Your task to perform on an android device: turn off translation in the chrome app Image 0: 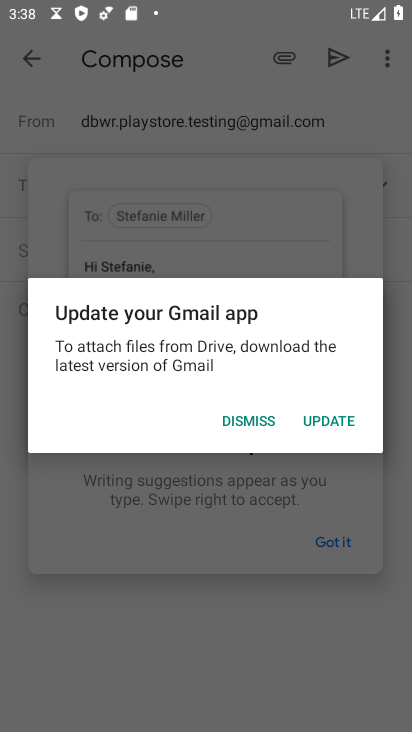
Step 0: press home button
Your task to perform on an android device: turn off translation in the chrome app Image 1: 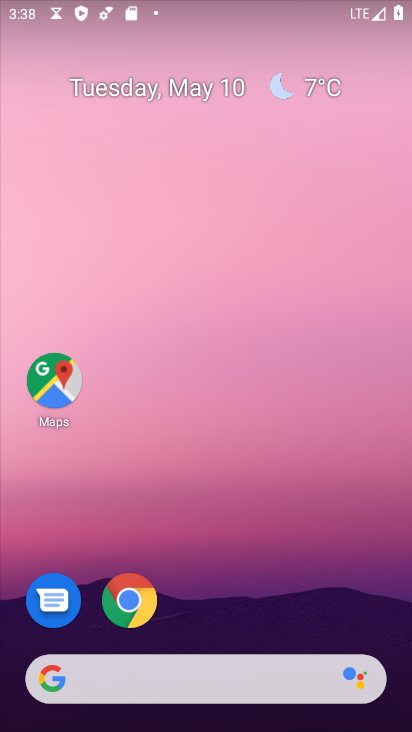
Step 1: click (141, 601)
Your task to perform on an android device: turn off translation in the chrome app Image 2: 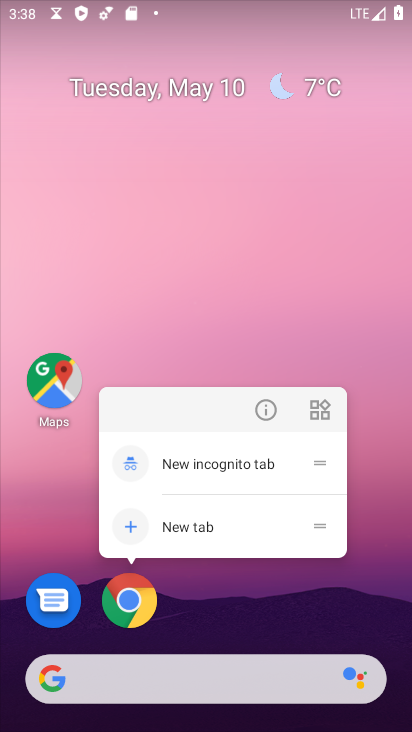
Step 2: click (140, 600)
Your task to perform on an android device: turn off translation in the chrome app Image 3: 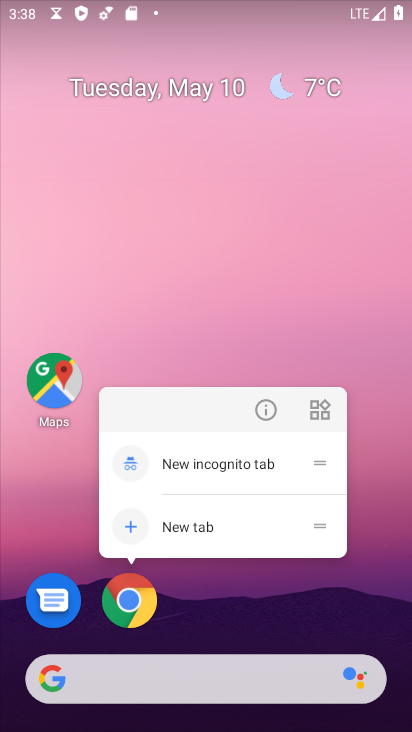
Step 3: click (132, 592)
Your task to perform on an android device: turn off translation in the chrome app Image 4: 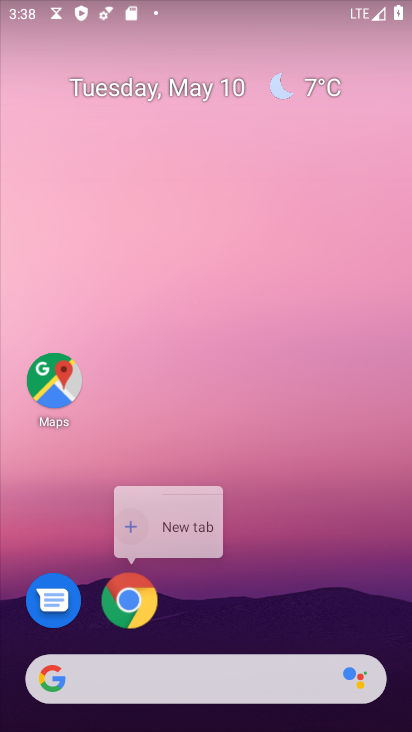
Step 4: click (133, 591)
Your task to perform on an android device: turn off translation in the chrome app Image 5: 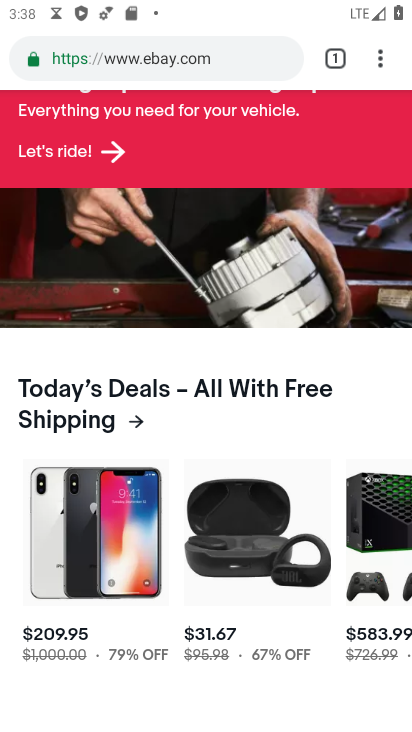
Step 5: click (343, 50)
Your task to perform on an android device: turn off translation in the chrome app Image 6: 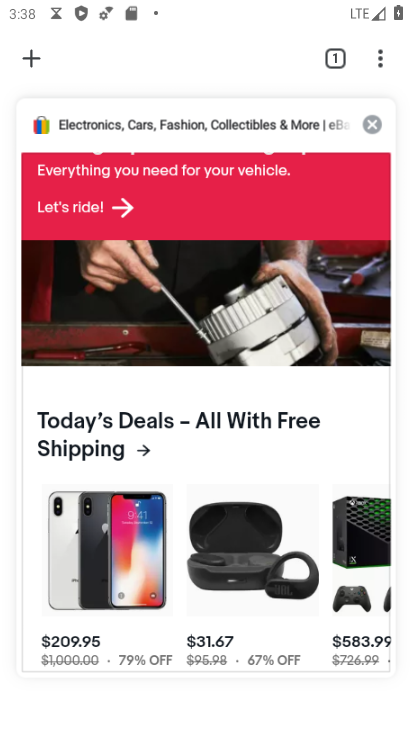
Step 6: click (373, 122)
Your task to perform on an android device: turn off translation in the chrome app Image 7: 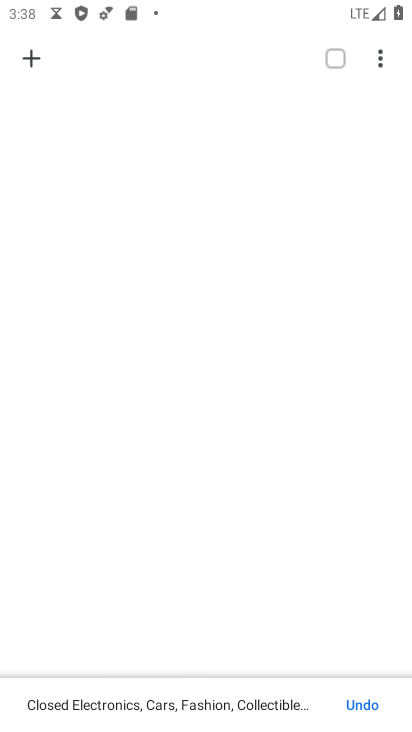
Step 7: click (384, 56)
Your task to perform on an android device: turn off translation in the chrome app Image 8: 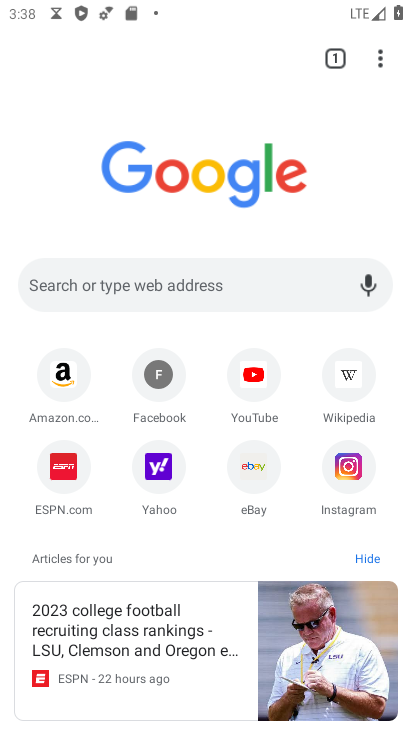
Step 8: click (384, 56)
Your task to perform on an android device: turn off translation in the chrome app Image 9: 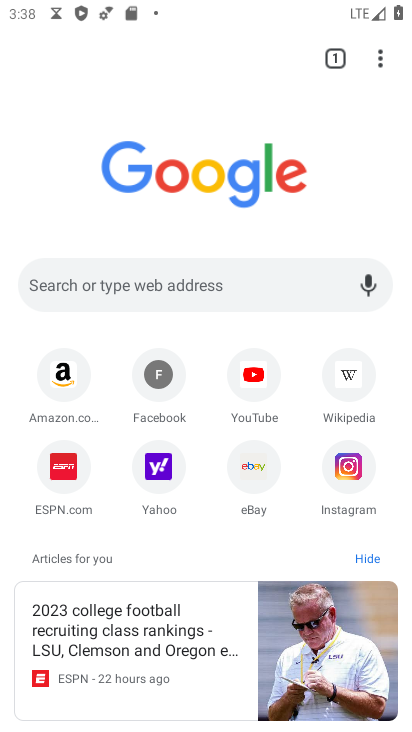
Step 9: click (383, 55)
Your task to perform on an android device: turn off translation in the chrome app Image 10: 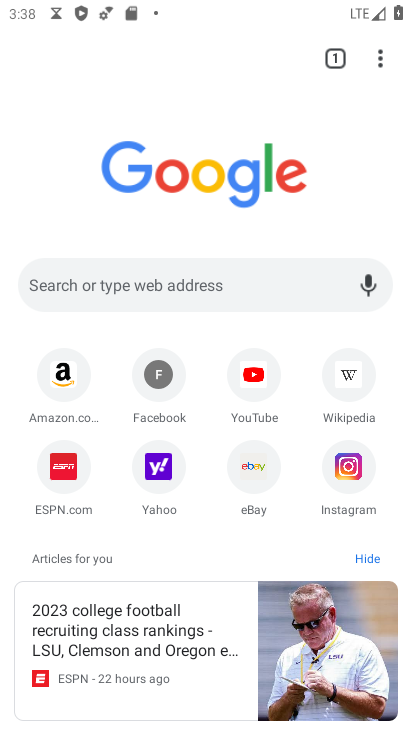
Step 10: click (383, 55)
Your task to perform on an android device: turn off translation in the chrome app Image 11: 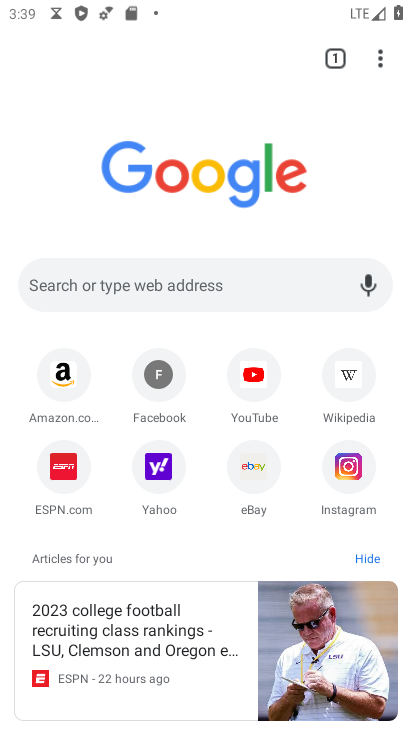
Step 11: click (383, 55)
Your task to perform on an android device: turn off translation in the chrome app Image 12: 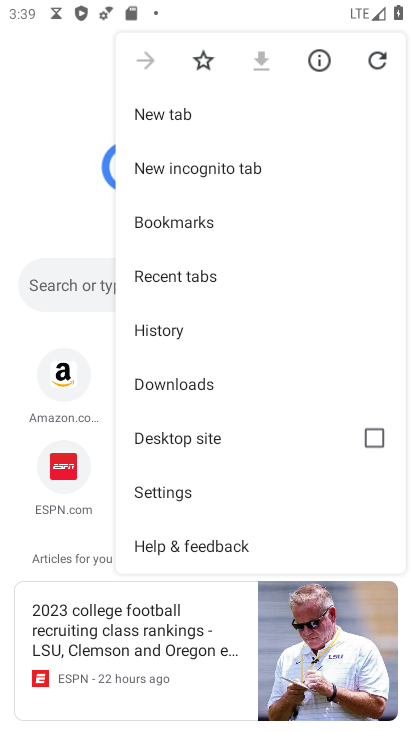
Step 12: click (192, 489)
Your task to perform on an android device: turn off translation in the chrome app Image 13: 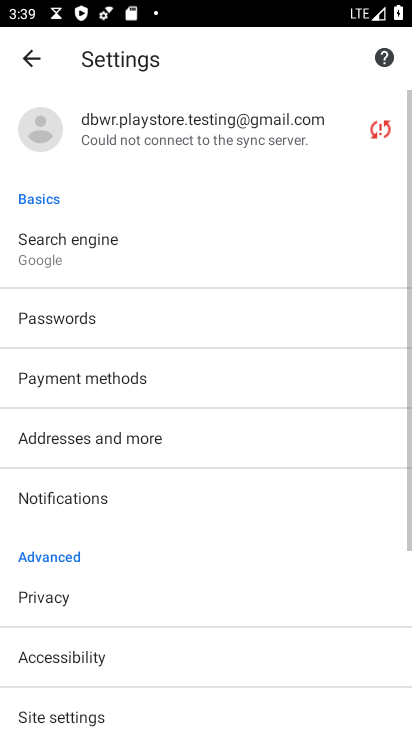
Step 13: drag from (187, 532) to (138, 317)
Your task to perform on an android device: turn off translation in the chrome app Image 14: 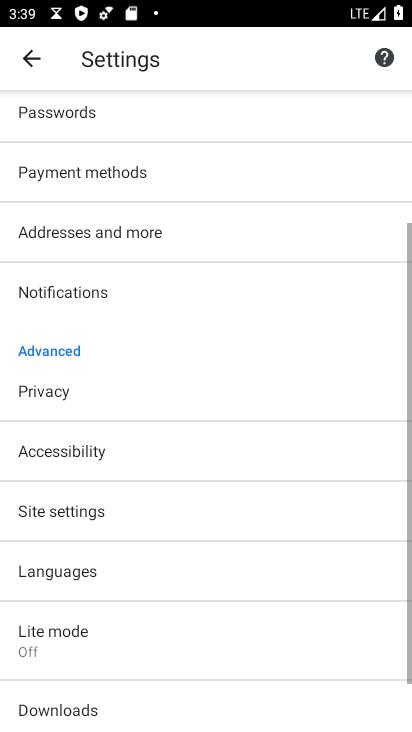
Step 14: drag from (184, 595) to (180, 198)
Your task to perform on an android device: turn off translation in the chrome app Image 15: 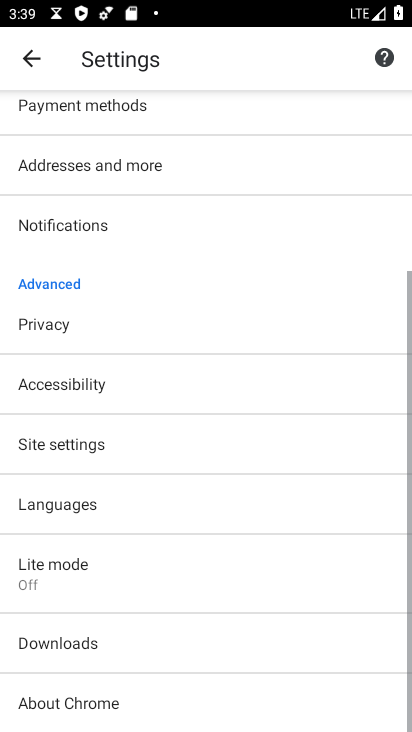
Step 15: drag from (176, 568) to (183, 279)
Your task to perform on an android device: turn off translation in the chrome app Image 16: 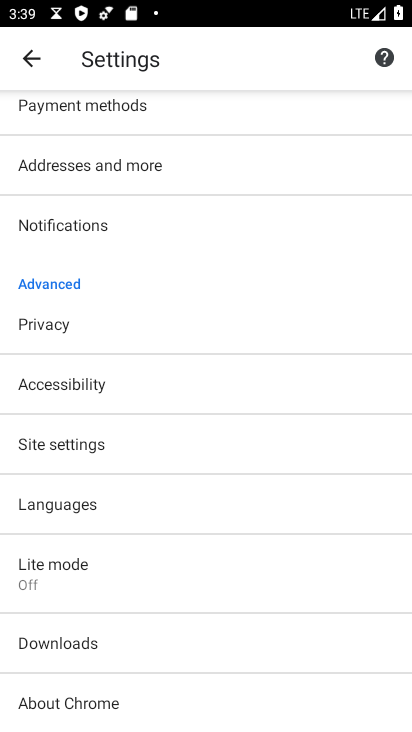
Step 16: drag from (198, 595) to (229, 309)
Your task to perform on an android device: turn off translation in the chrome app Image 17: 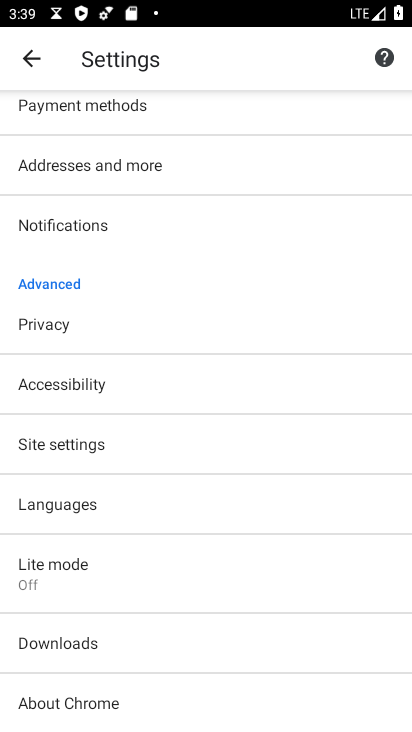
Step 17: drag from (260, 660) to (253, 295)
Your task to perform on an android device: turn off translation in the chrome app Image 18: 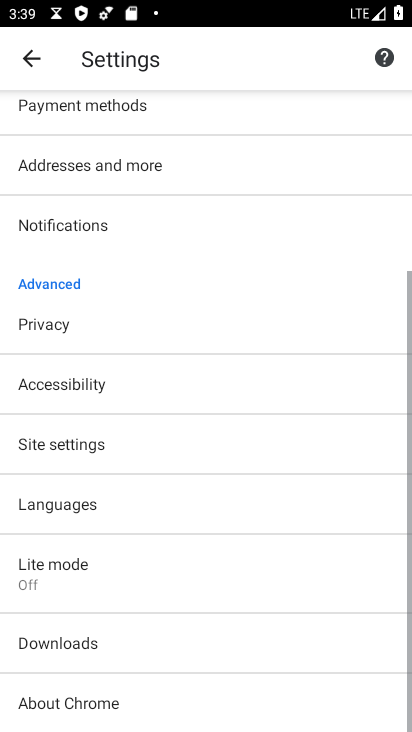
Step 18: drag from (214, 231) to (262, 649)
Your task to perform on an android device: turn off translation in the chrome app Image 19: 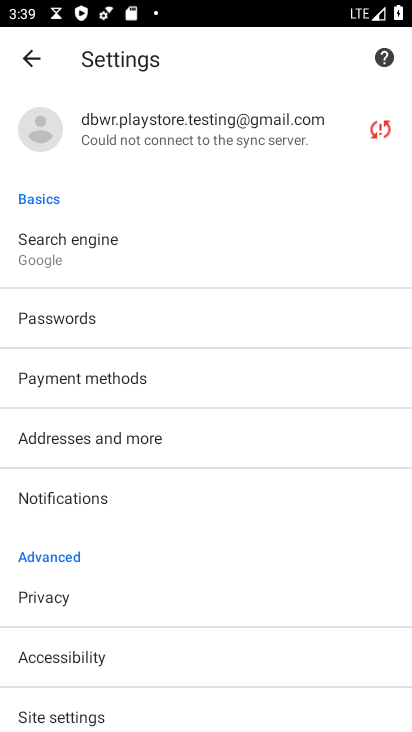
Step 19: click (37, 62)
Your task to perform on an android device: turn off translation in the chrome app Image 20: 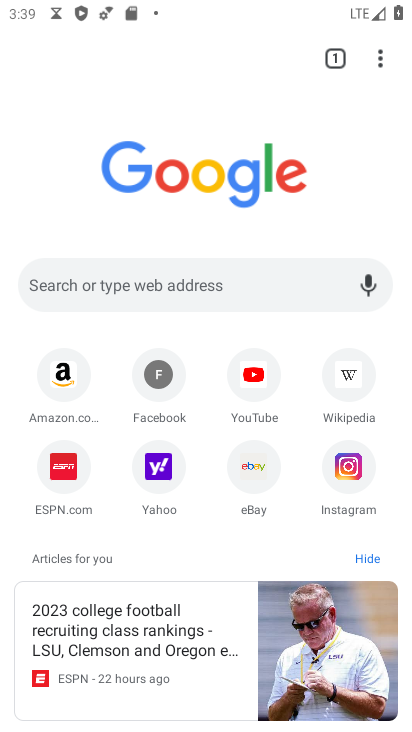
Step 20: click (381, 51)
Your task to perform on an android device: turn off translation in the chrome app Image 21: 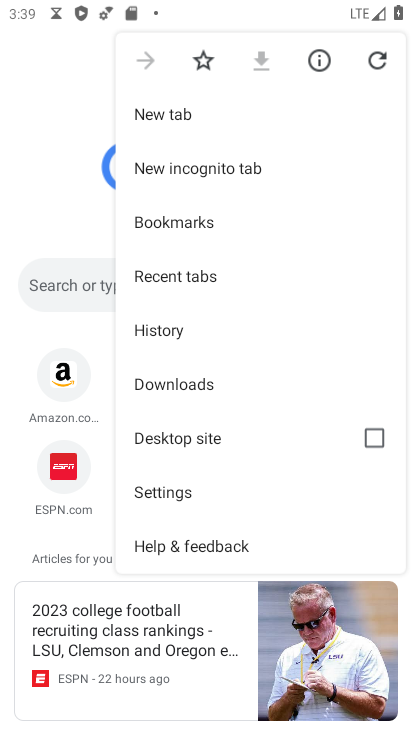
Step 21: click (234, 486)
Your task to perform on an android device: turn off translation in the chrome app Image 22: 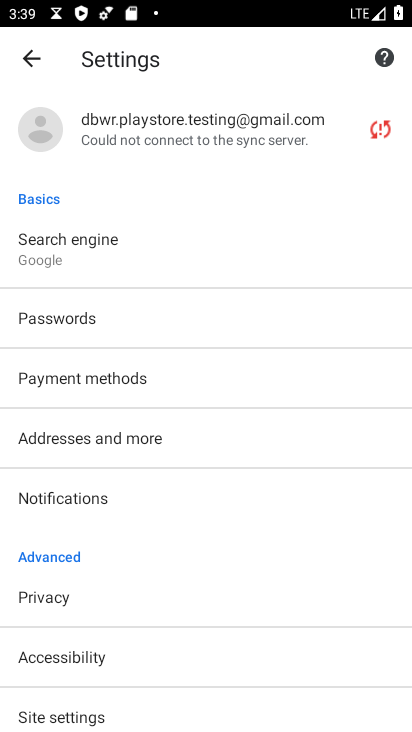
Step 22: click (96, 722)
Your task to perform on an android device: turn off translation in the chrome app Image 23: 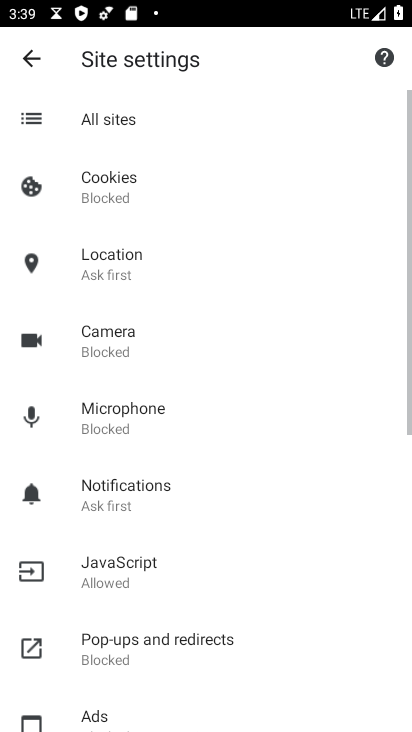
Step 23: task complete